Your task to perform on an android device: change timer sound Image 0: 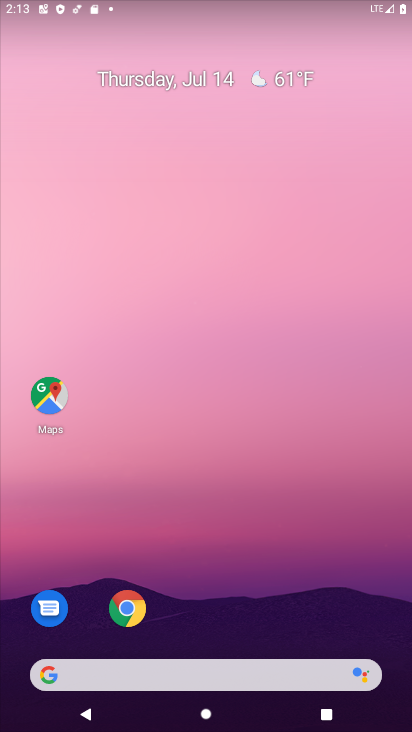
Step 0: click (255, 171)
Your task to perform on an android device: change timer sound Image 1: 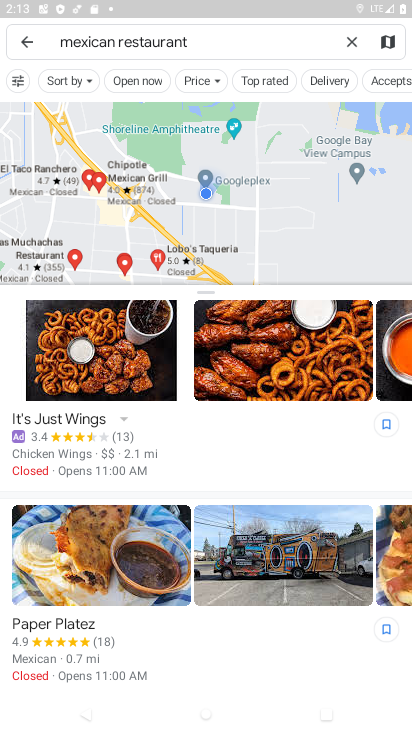
Step 1: press home button
Your task to perform on an android device: change timer sound Image 2: 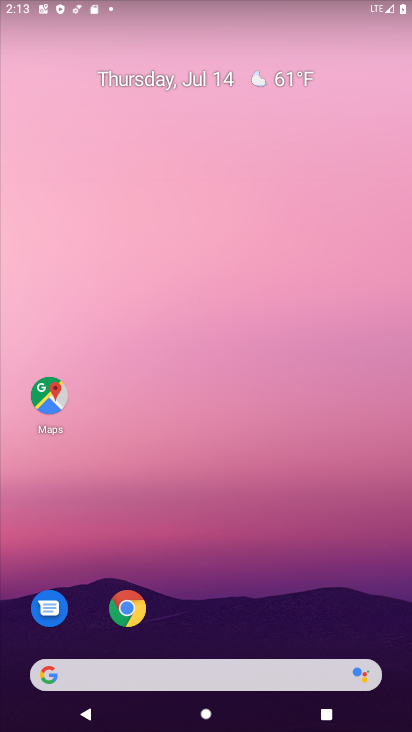
Step 2: drag from (199, 632) to (242, 197)
Your task to perform on an android device: change timer sound Image 3: 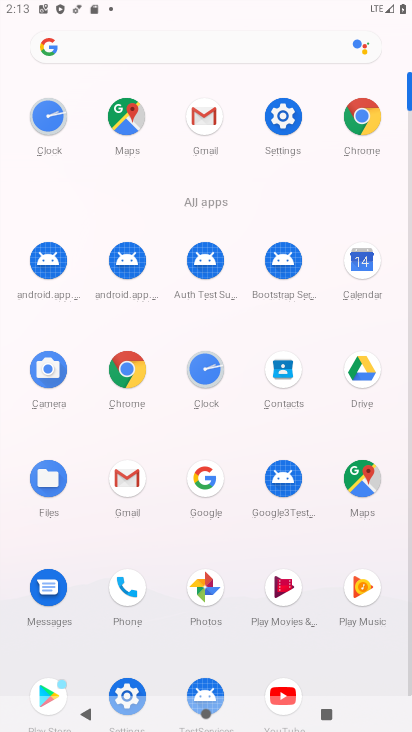
Step 3: click (211, 364)
Your task to perform on an android device: change timer sound Image 4: 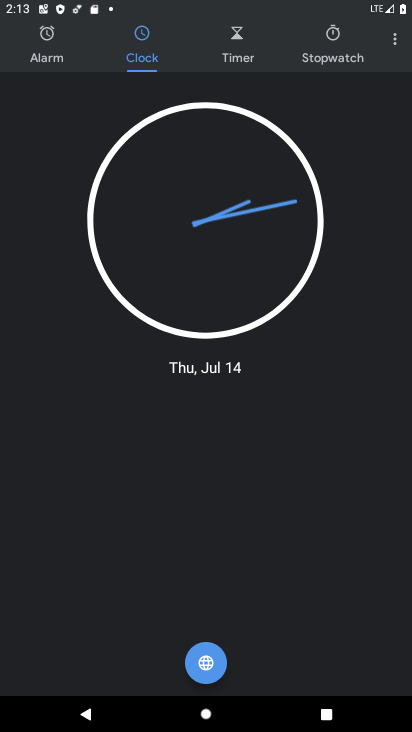
Step 4: click (392, 38)
Your task to perform on an android device: change timer sound Image 5: 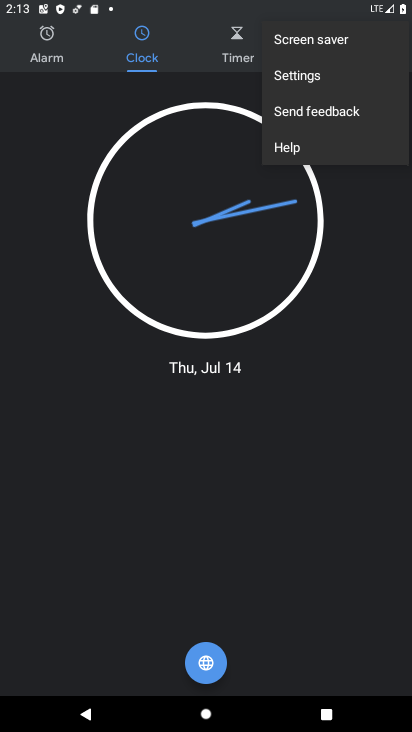
Step 5: click (301, 71)
Your task to perform on an android device: change timer sound Image 6: 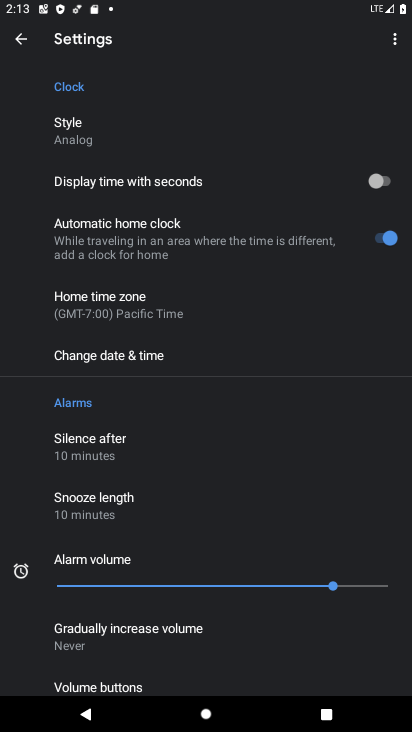
Step 6: drag from (83, 641) to (80, 267)
Your task to perform on an android device: change timer sound Image 7: 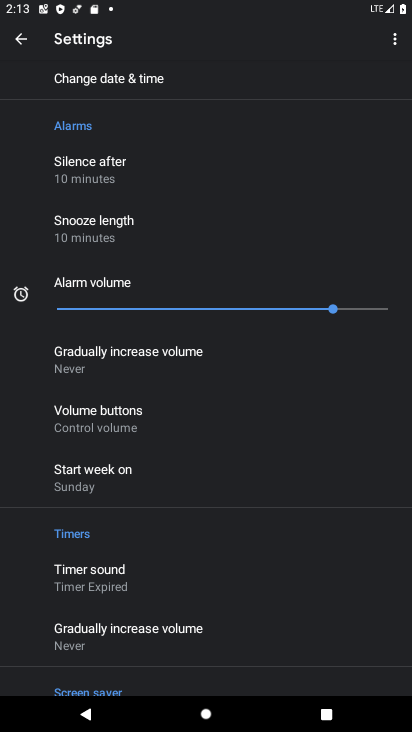
Step 7: click (97, 584)
Your task to perform on an android device: change timer sound Image 8: 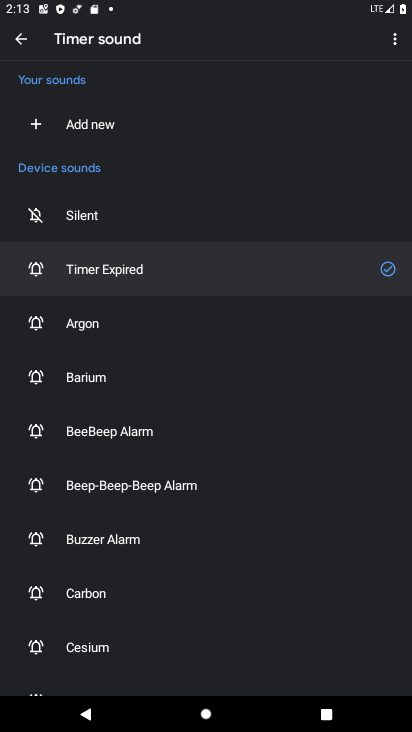
Step 8: click (84, 321)
Your task to perform on an android device: change timer sound Image 9: 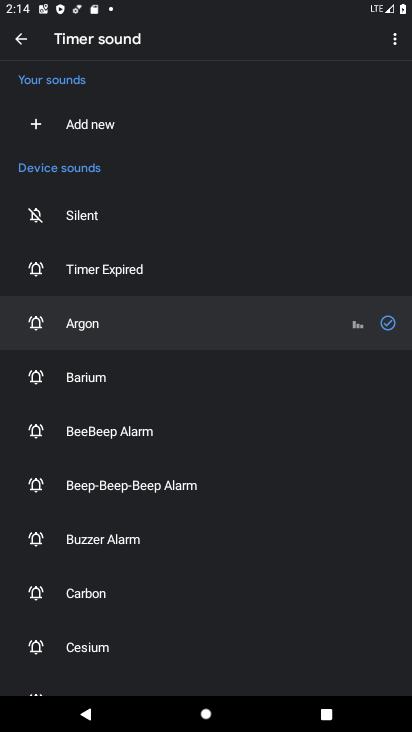
Step 9: task complete